Your task to perform on an android device: Toggle the flashlight Image 0: 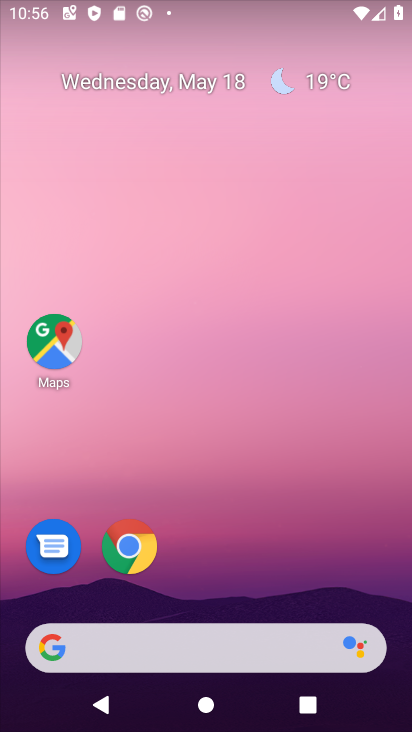
Step 0: drag from (225, 721) to (225, 199)
Your task to perform on an android device: Toggle the flashlight Image 1: 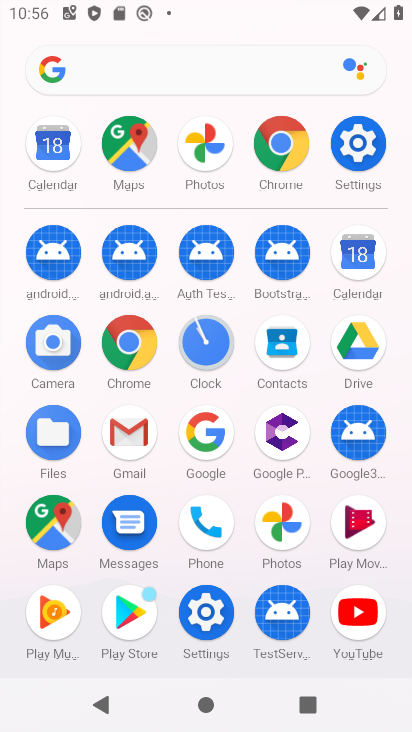
Step 1: click (357, 144)
Your task to perform on an android device: Toggle the flashlight Image 2: 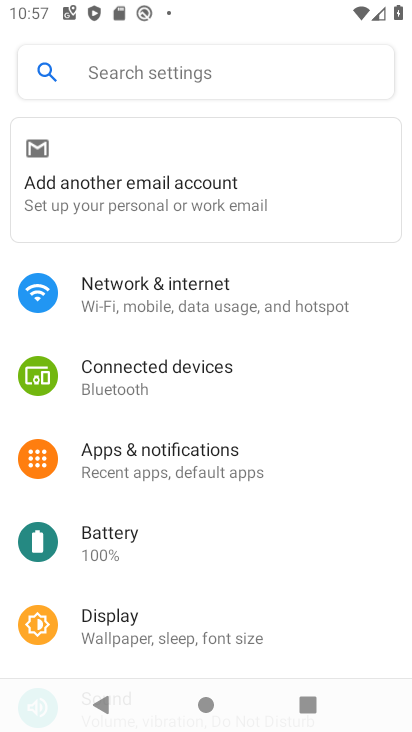
Step 2: task complete